Your task to perform on an android device: Search for pizza restaurants on Maps Image 0: 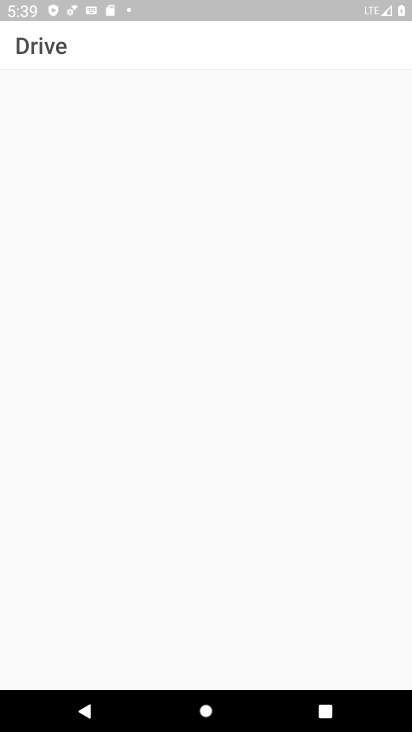
Step 0: press home button
Your task to perform on an android device: Search for pizza restaurants on Maps Image 1: 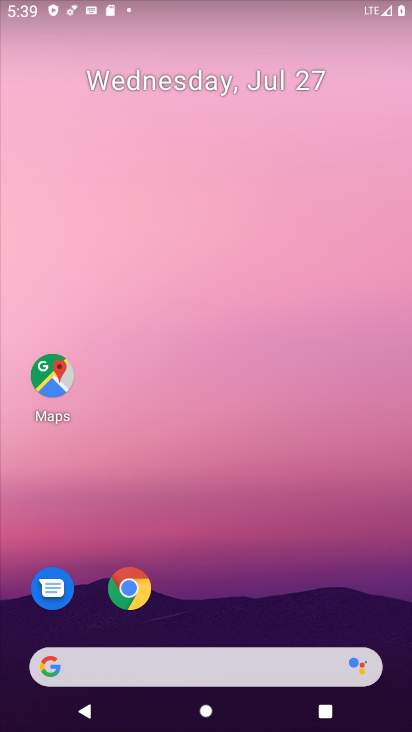
Step 1: drag from (302, 645) to (406, 621)
Your task to perform on an android device: Search for pizza restaurants on Maps Image 2: 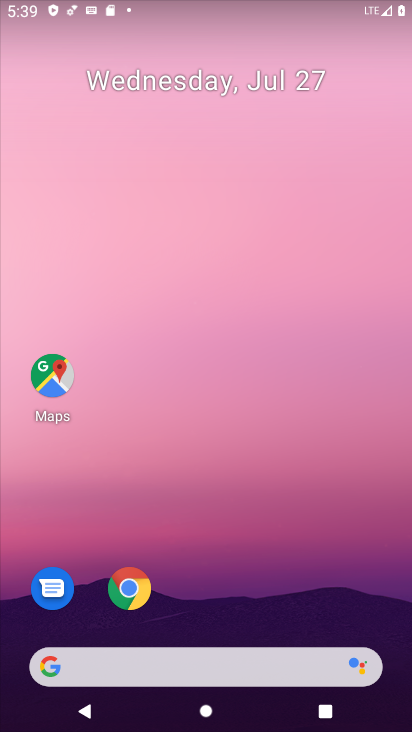
Step 2: drag from (119, 578) to (214, 154)
Your task to perform on an android device: Search for pizza restaurants on Maps Image 3: 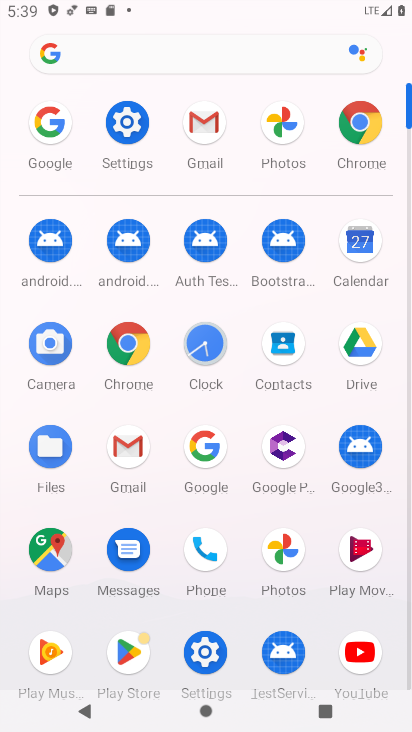
Step 3: click (41, 535)
Your task to perform on an android device: Search for pizza restaurants on Maps Image 4: 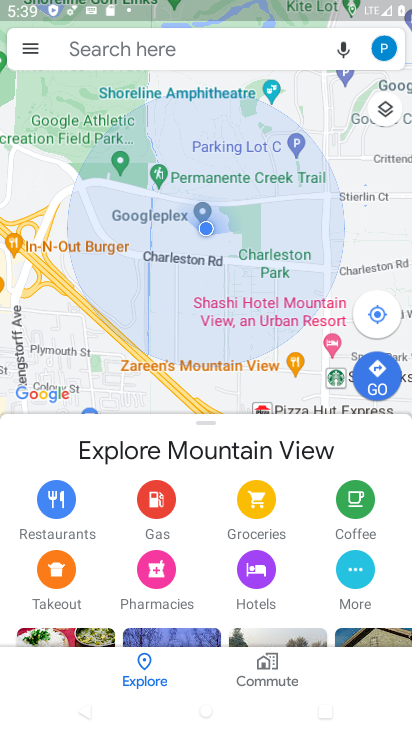
Step 4: click (212, 64)
Your task to perform on an android device: Search for pizza restaurants on Maps Image 5: 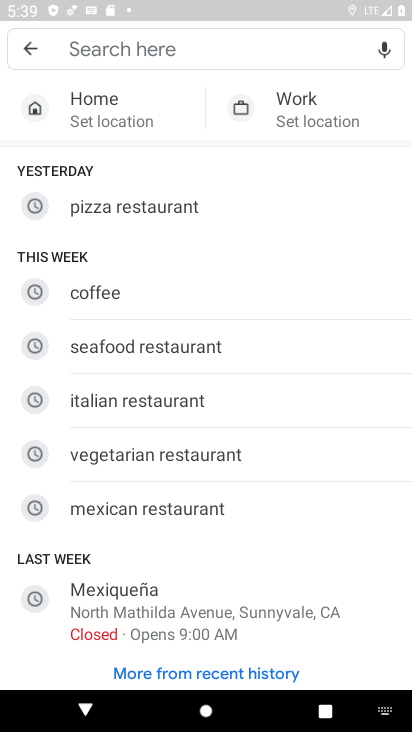
Step 5: click (134, 205)
Your task to perform on an android device: Search for pizza restaurants on Maps Image 6: 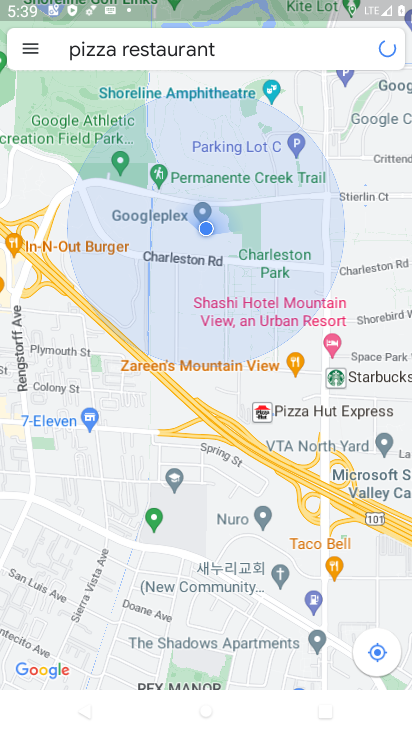
Step 6: task complete